Your task to perform on an android device: open chrome and create a bookmark for the current page Image 0: 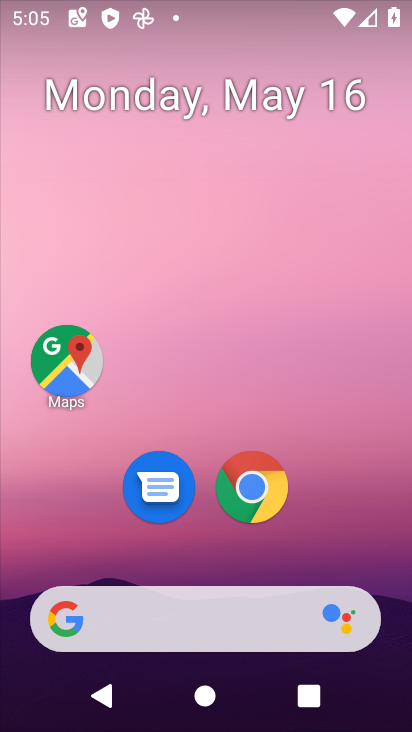
Step 0: click (251, 492)
Your task to perform on an android device: open chrome and create a bookmark for the current page Image 1: 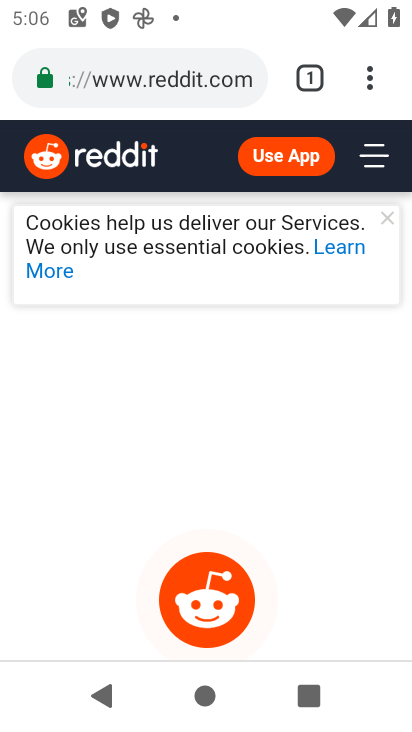
Step 1: click (369, 84)
Your task to perform on an android device: open chrome and create a bookmark for the current page Image 2: 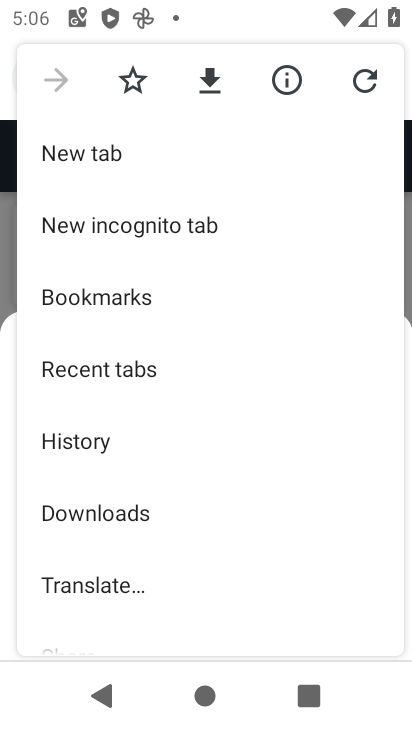
Step 2: click (133, 83)
Your task to perform on an android device: open chrome and create a bookmark for the current page Image 3: 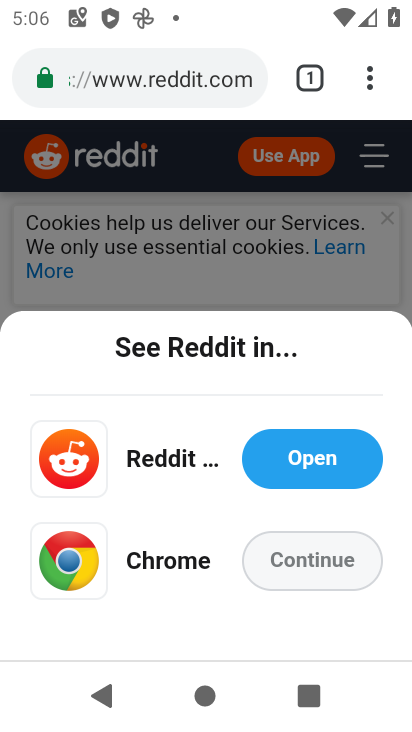
Step 3: task complete